Your task to perform on an android device: Open settings Image 0: 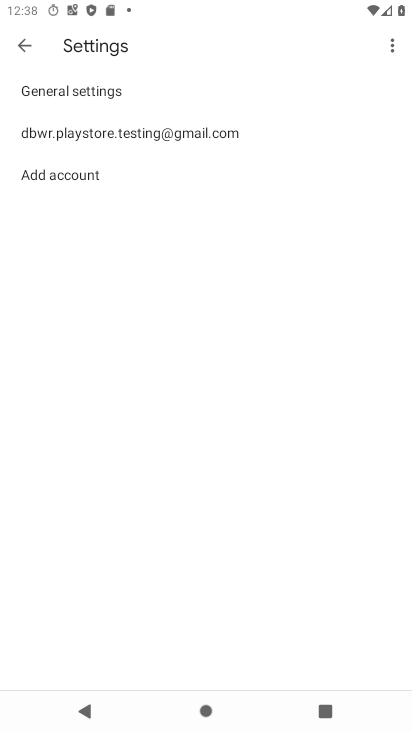
Step 0: press home button
Your task to perform on an android device: Open settings Image 1: 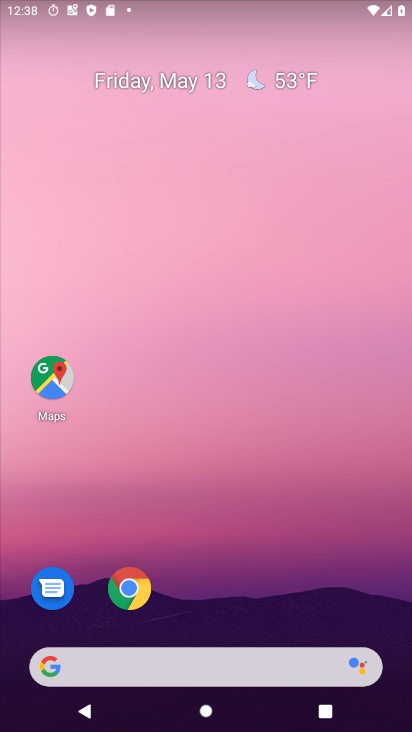
Step 1: drag from (314, 425) to (314, 0)
Your task to perform on an android device: Open settings Image 2: 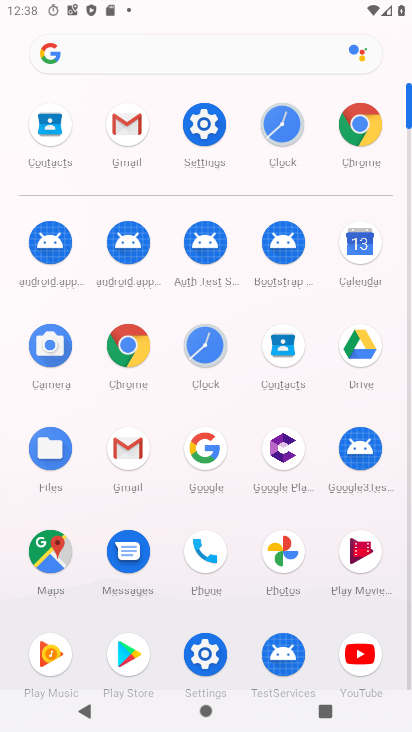
Step 2: click (221, 113)
Your task to perform on an android device: Open settings Image 3: 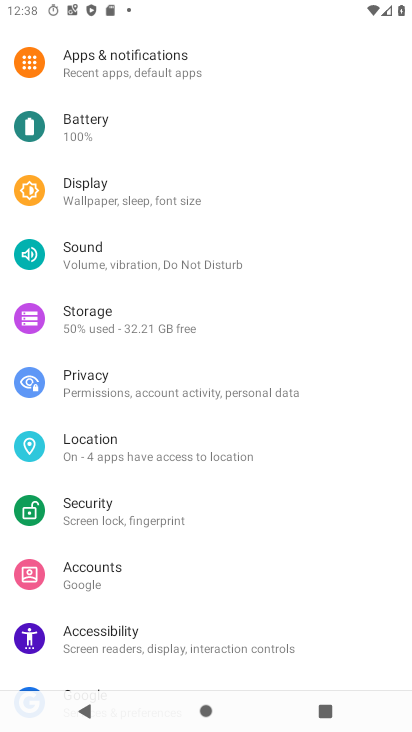
Step 3: task complete